Your task to perform on an android device: show emergency info Image 0: 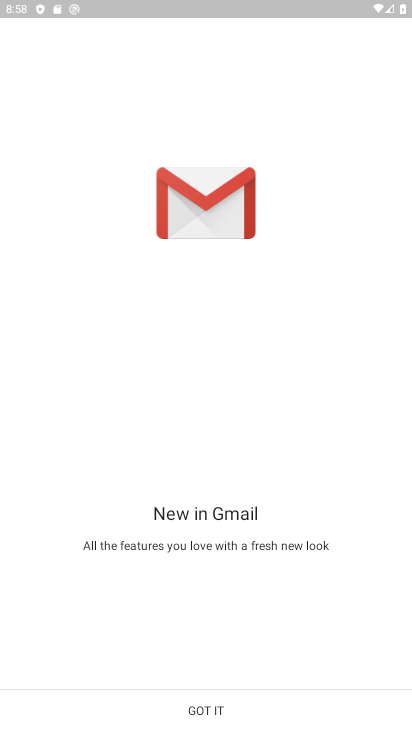
Step 0: press home button
Your task to perform on an android device: show emergency info Image 1: 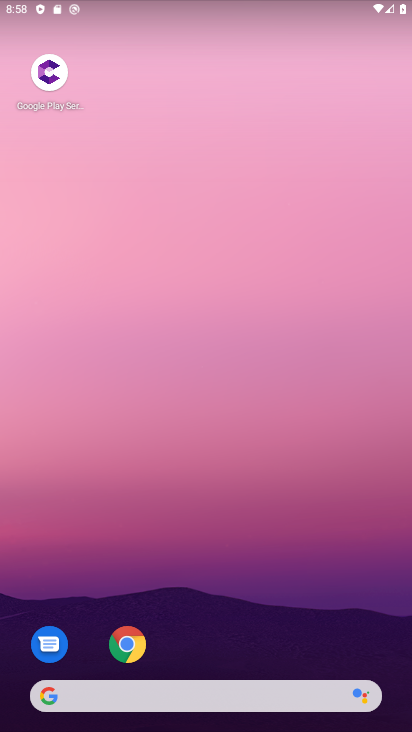
Step 1: drag from (225, 662) to (239, 17)
Your task to perform on an android device: show emergency info Image 2: 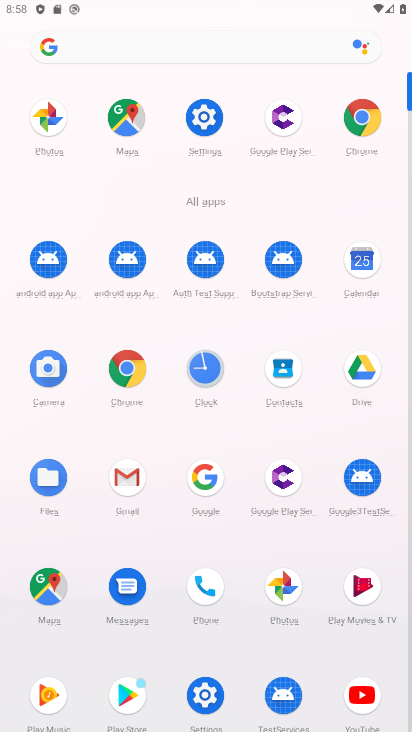
Step 2: click (207, 128)
Your task to perform on an android device: show emergency info Image 3: 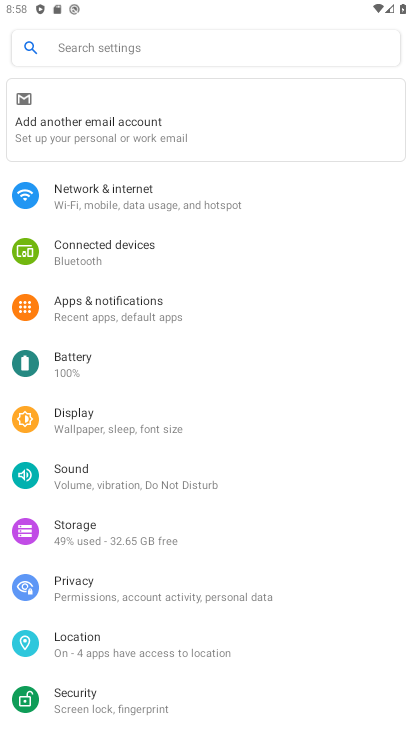
Step 3: drag from (246, 603) to (215, 168)
Your task to perform on an android device: show emergency info Image 4: 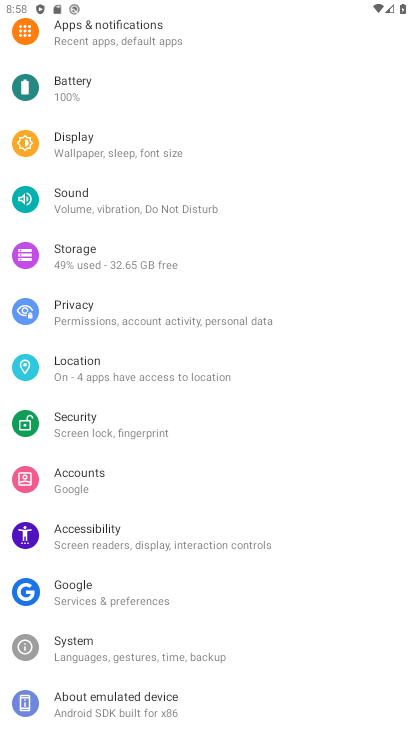
Step 4: click (123, 708)
Your task to perform on an android device: show emergency info Image 5: 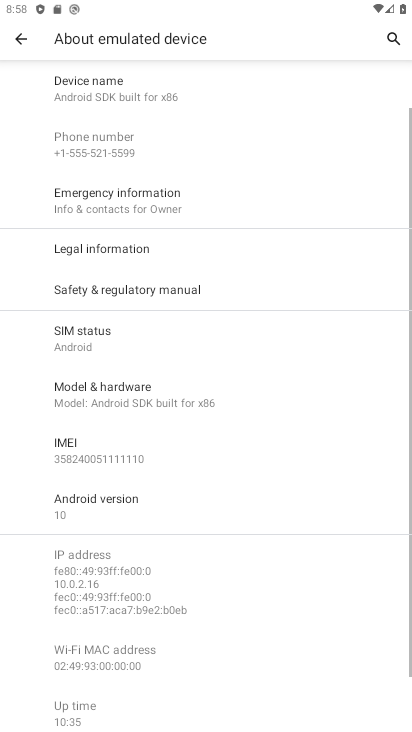
Step 5: click (97, 207)
Your task to perform on an android device: show emergency info Image 6: 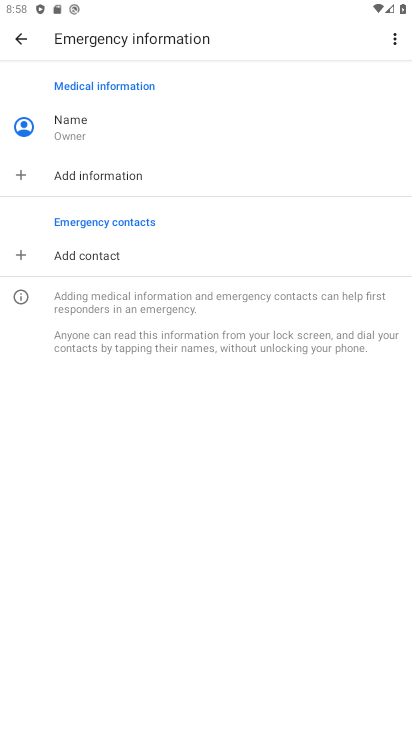
Step 6: task complete